Your task to perform on an android device: Add "dell alienware" to the cart on amazon.com, then select checkout. Image 0: 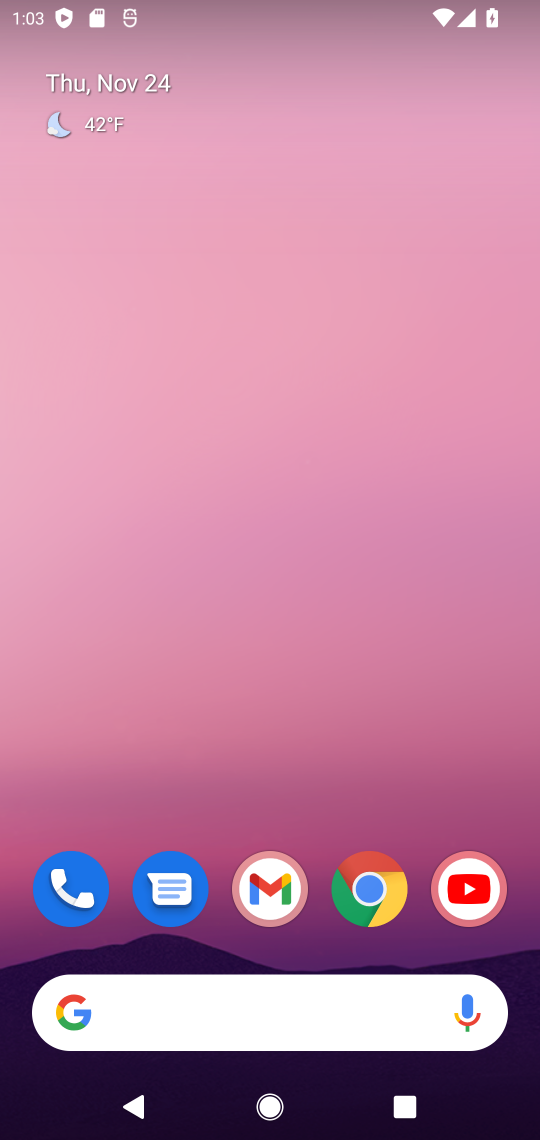
Step 0: click (374, 893)
Your task to perform on an android device: Add "dell alienware" to the cart on amazon.com, then select checkout. Image 1: 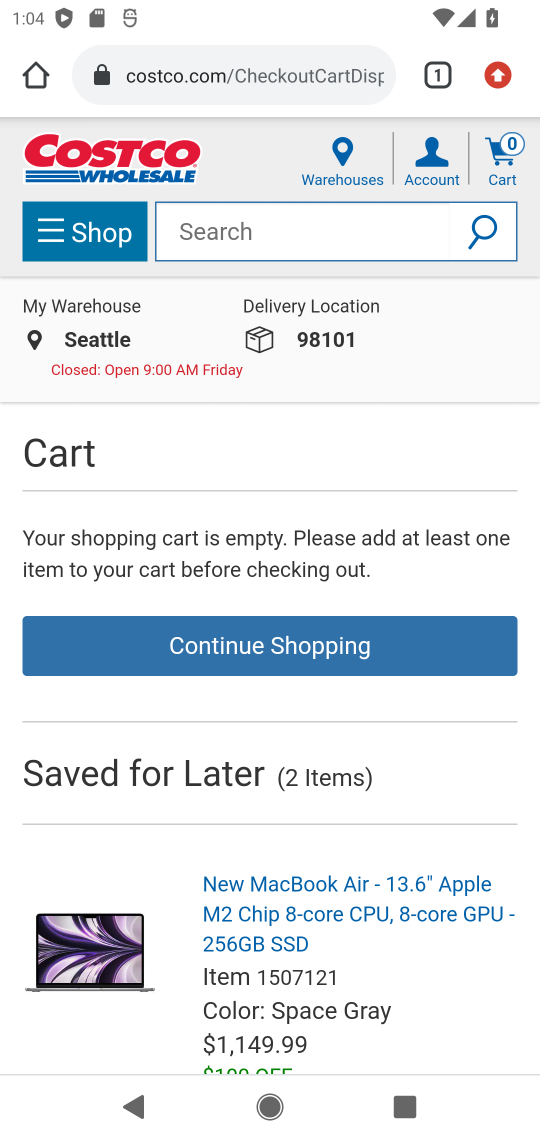
Step 1: click (226, 73)
Your task to perform on an android device: Add "dell alienware" to the cart on amazon.com, then select checkout. Image 2: 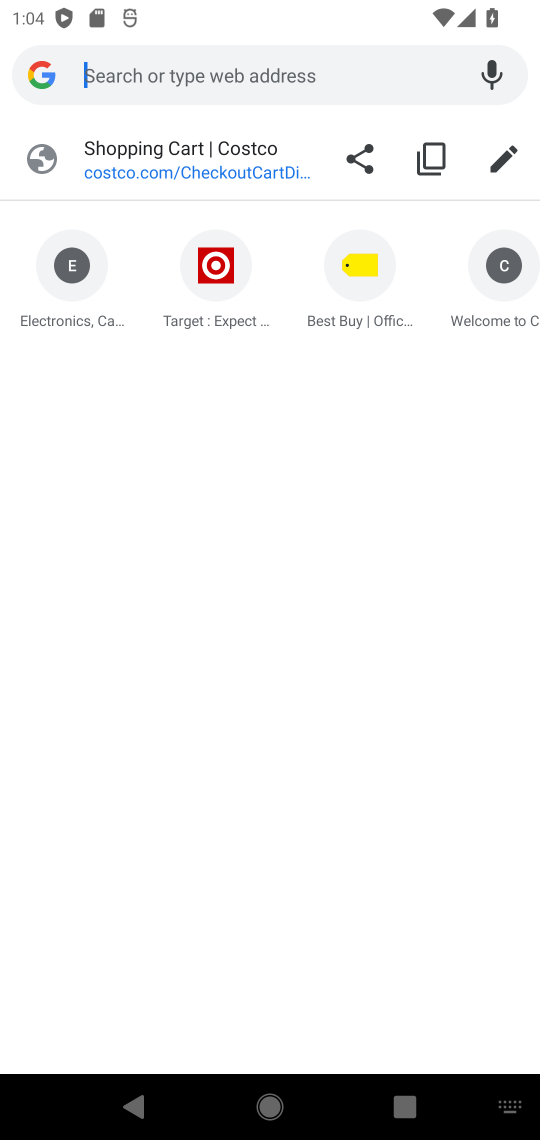
Step 2: type "amazon.com"
Your task to perform on an android device: Add "dell alienware" to the cart on amazon.com, then select checkout. Image 3: 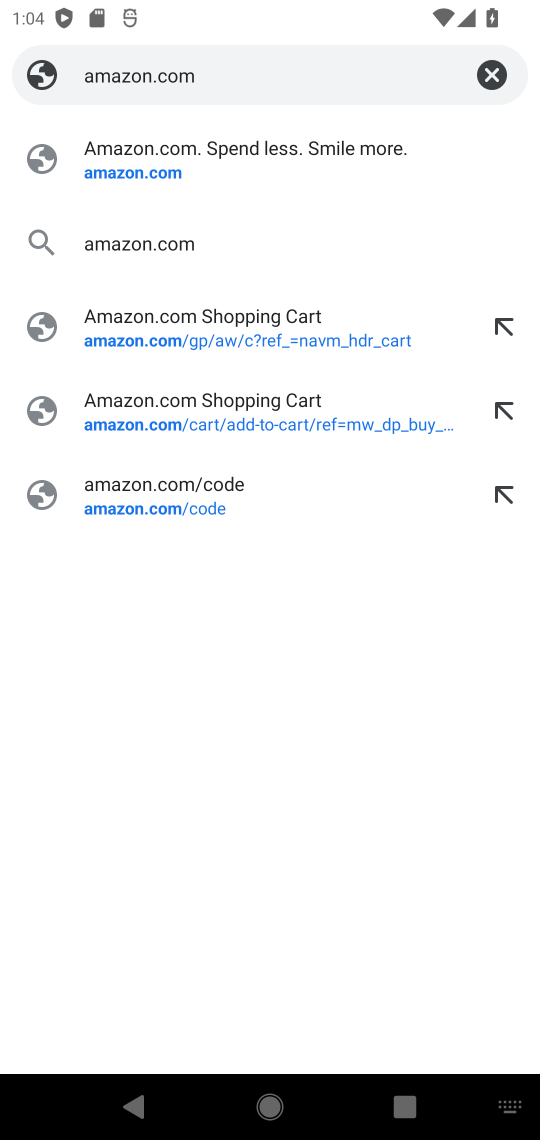
Step 3: click (136, 159)
Your task to perform on an android device: Add "dell alienware" to the cart on amazon.com, then select checkout. Image 4: 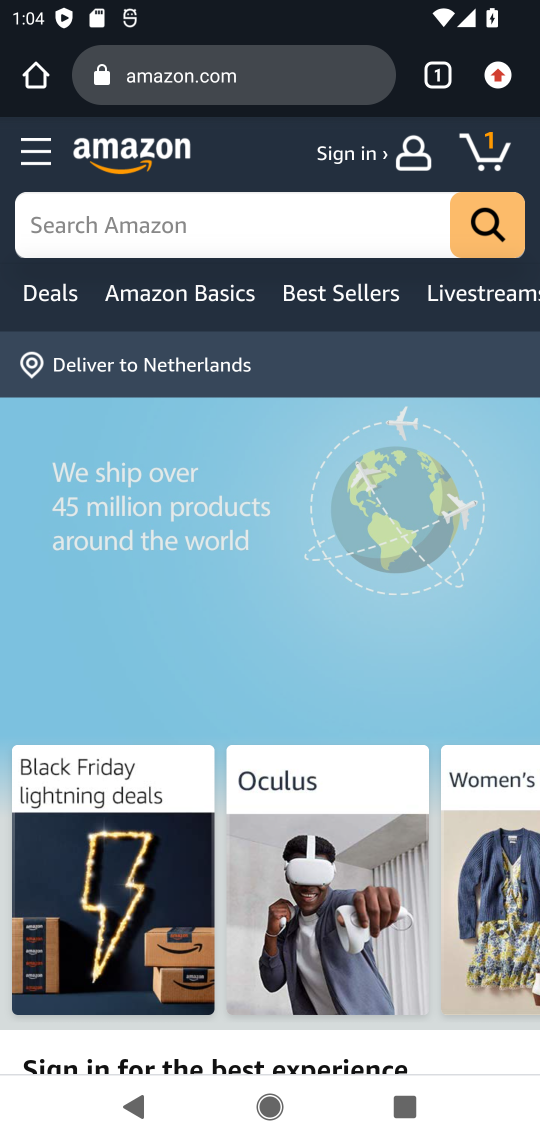
Step 4: click (59, 235)
Your task to perform on an android device: Add "dell alienware" to the cart on amazon.com, then select checkout. Image 5: 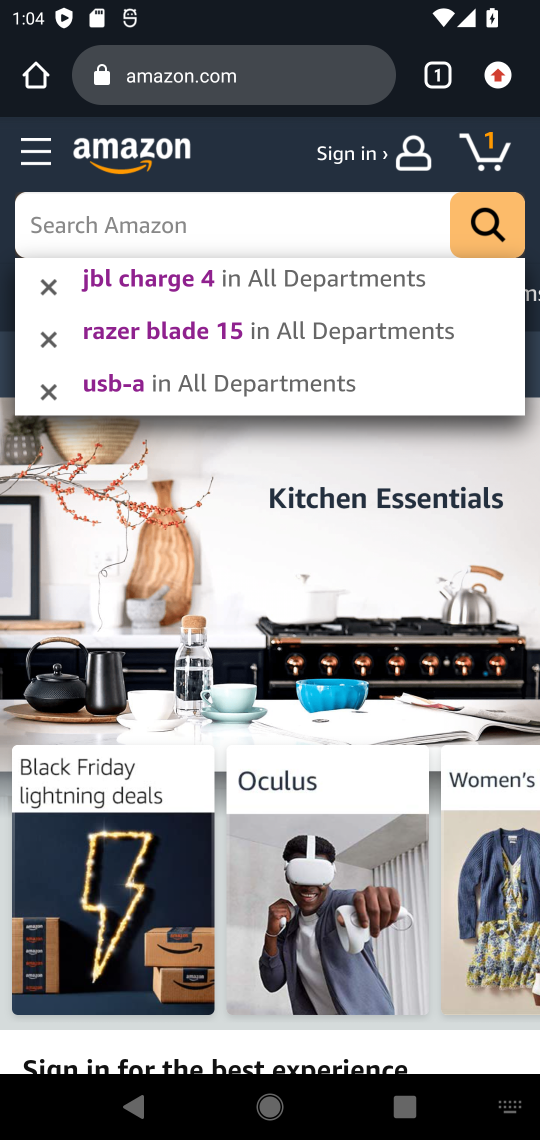
Step 5: type "dell alienware"
Your task to perform on an android device: Add "dell alienware" to the cart on amazon.com, then select checkout. Image 6: 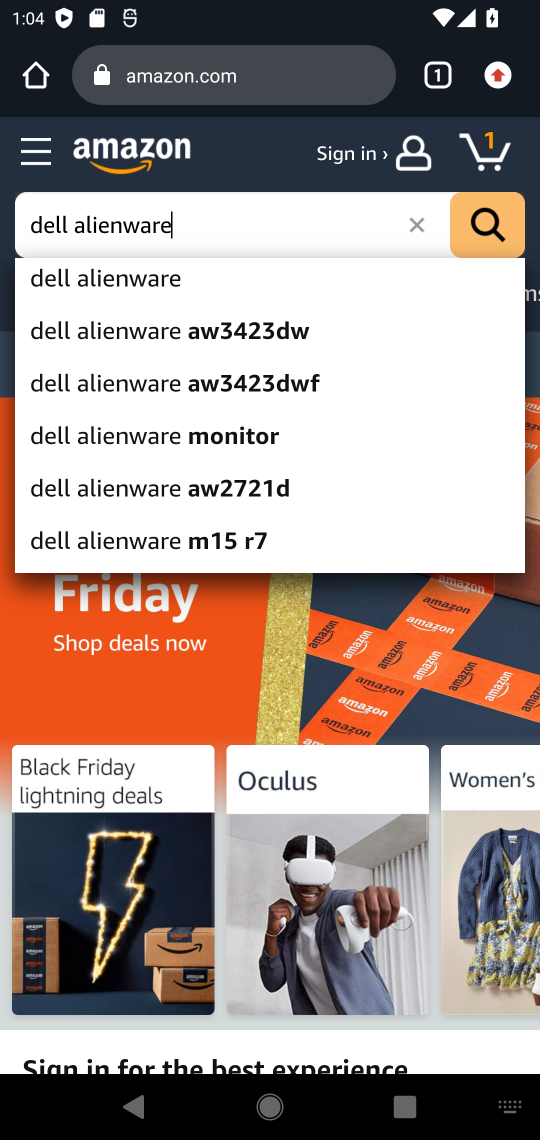
Step 6: click (92, 288)
Your task to perform on an android device: Add "dell alienware" to the cart on amazon.com, then select checkout. Image 7: 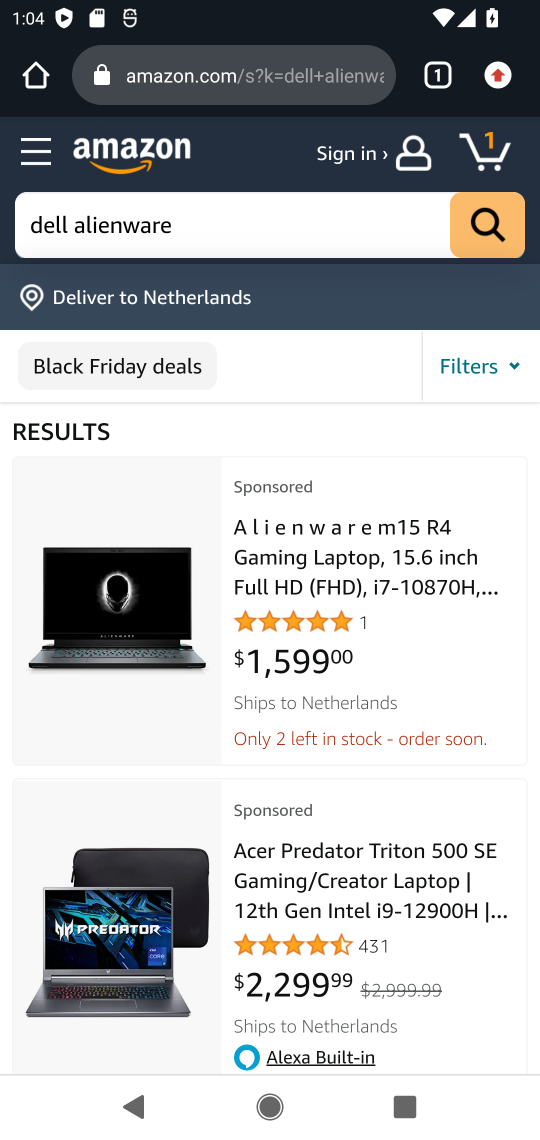
Step 7: drag from (148, 773) to (167, 533)
Your task to perform on an android device: Add "dell alienware" to the cart on amazon.com, then select checkout. Image 8: 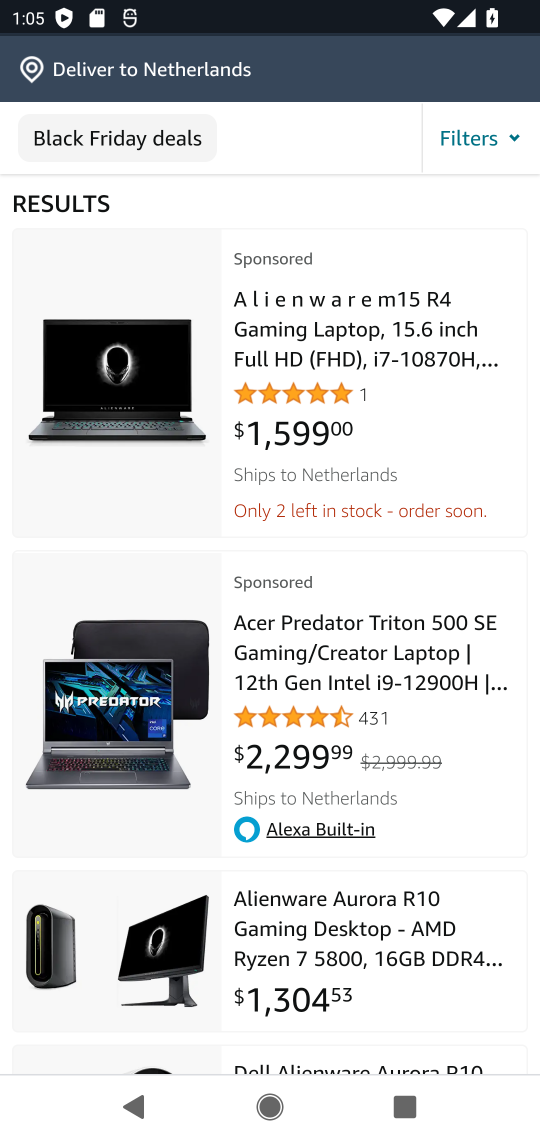
Step 8: drag from (159, 781) to (159, 485)
Your task to perform on an android device: Add "dell alienware" to the cart on amazon.com, then select checkout. Image 9: 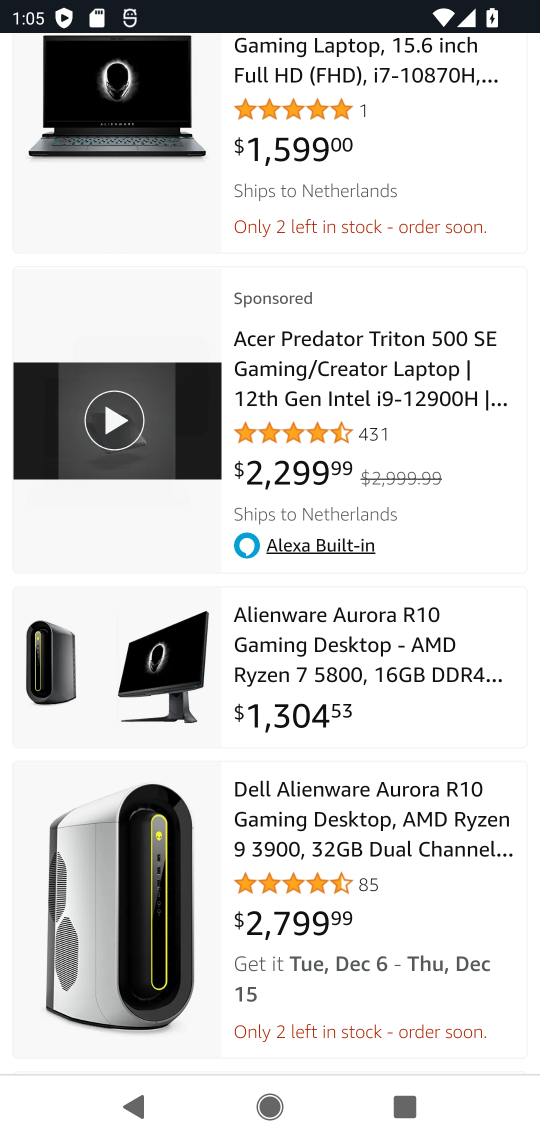
Step 9: drag from (139, 779) to (156, 579)
Your task to perform on an android device: Add "dell alienware" to the cart on amazon.com, then select checkout. Image 10: 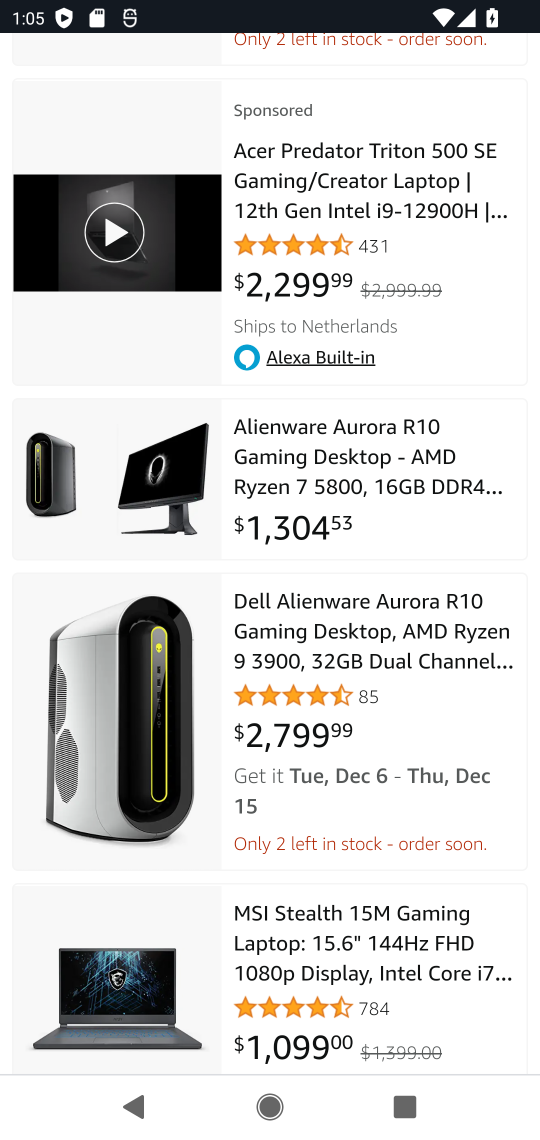
Step 10: click (131, 723)
Your task to perform on an android device: Add "dell alienware" to the cart on amazon.com, then select checkout. Image 11: 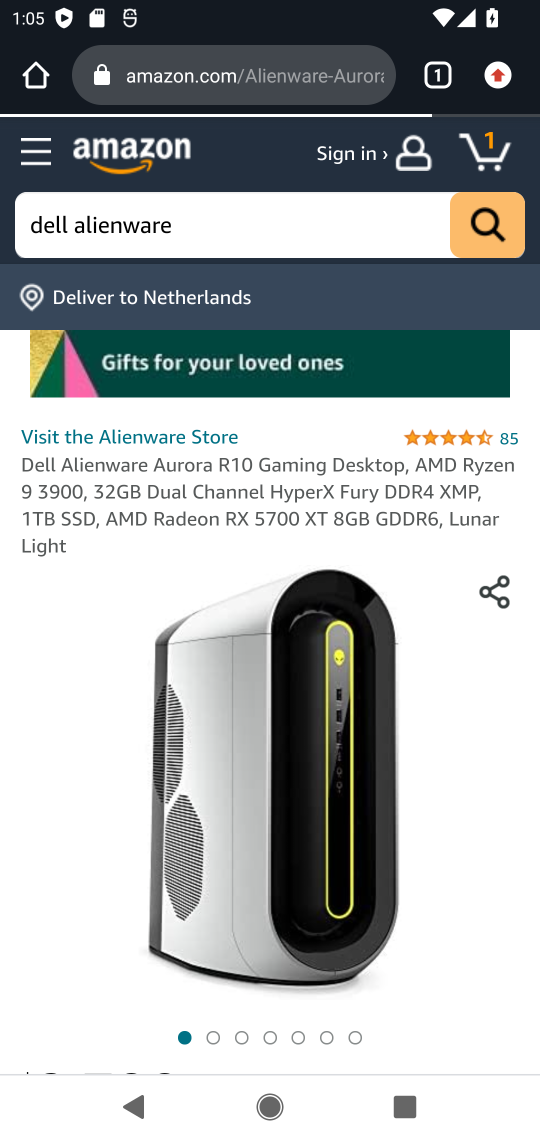
Step 11: drag from (166, 797) to (185, 388)
Your task to perform on an android device: Add "dell alienware" to the cart on amazon.com, then select checkout. Image 12: 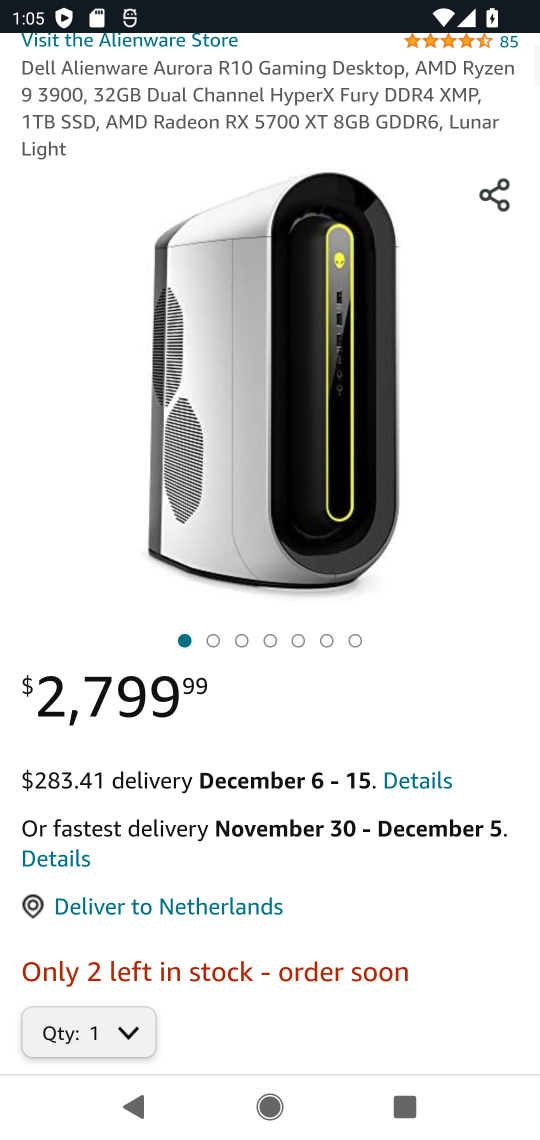
Step 12: drag from (180, 726) to (181, 377)
Your task to perform on an android device: Add "dell alienware" to the cart on amazon.com, then select checkout. Image 13: 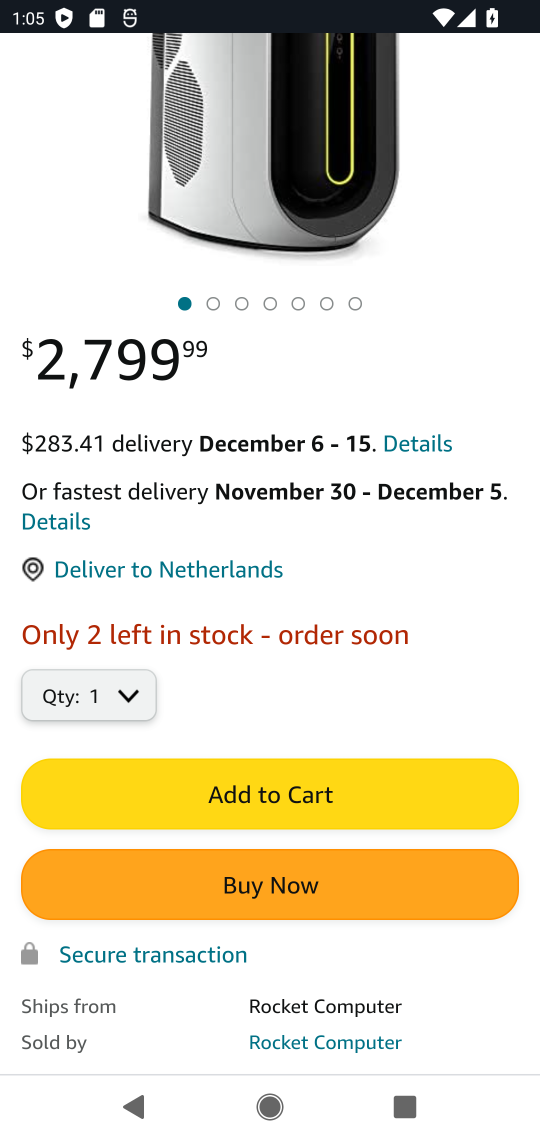
Step 13: click (221, 792)
Your task to perform on an android device: Add "dell alienware" to the cart on amazon.com, then select checkout. Image 14: 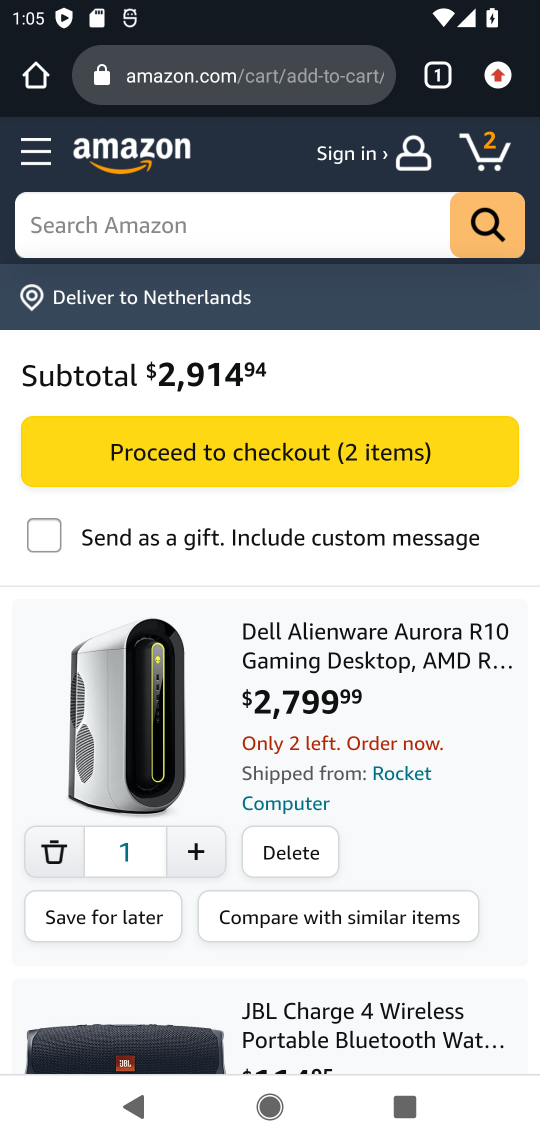
Step 14: click (233, 450)
Your task to perform on an android device: Add "dell alienware" to the cart on amazon.com, then select checkout. Image 15: 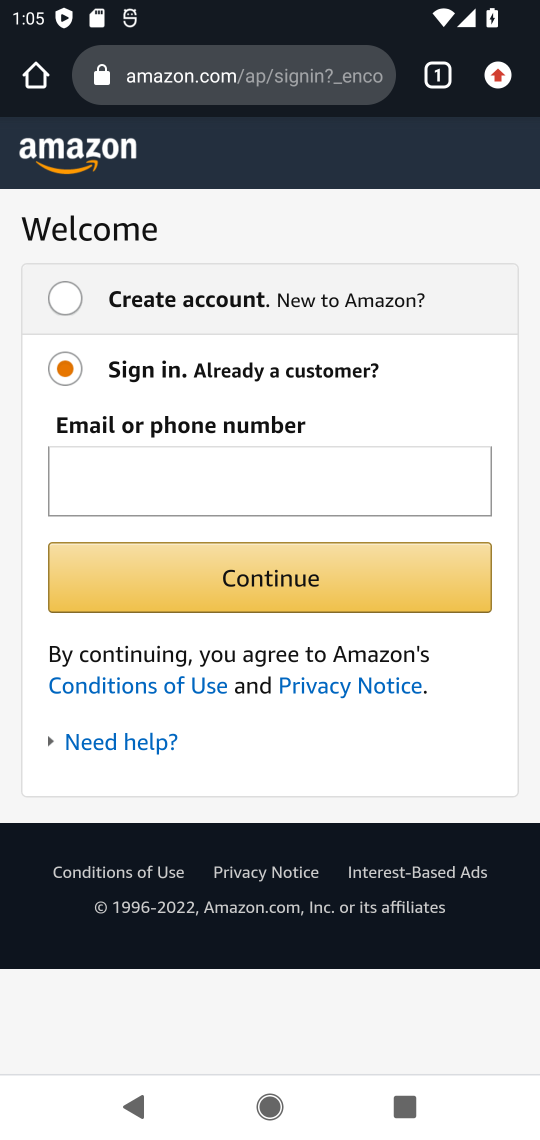
Step 15: task complete